Your task to perform on an android device: Open maps Image 0: 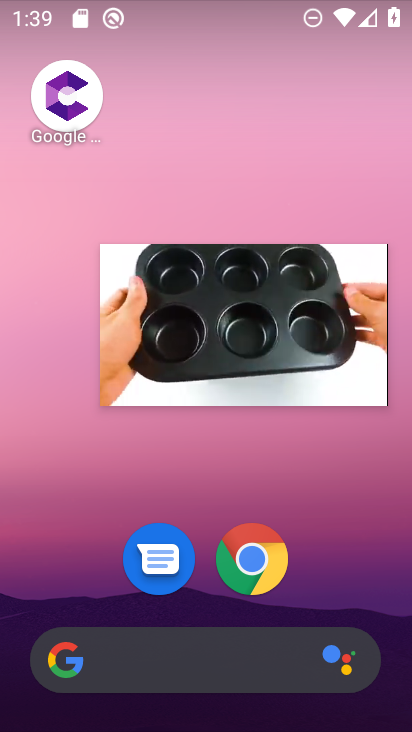
Step 0: drag from (260, 497) to (207, 58)
Your task to perform on an android device: Open maps Image 1: 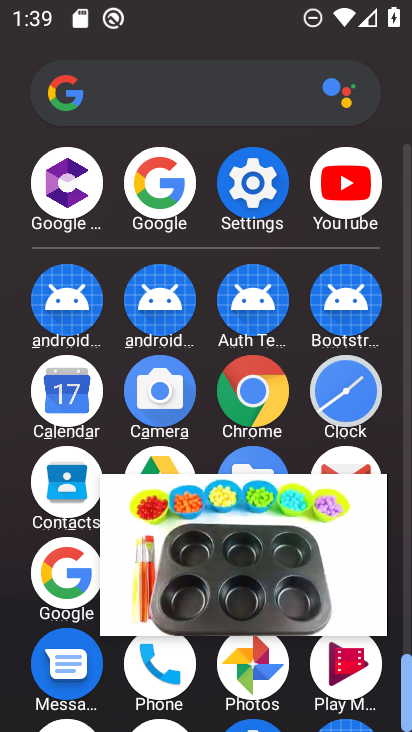
Step 1: click (279, 496)
Your task to perform on an android device: Open maps Image 2: 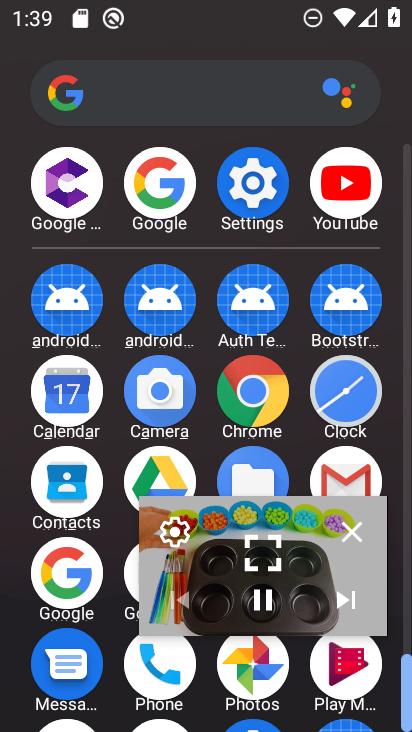
Step 2: click (355, 533)
Your task to perform on an android device: Open maps Image 3: 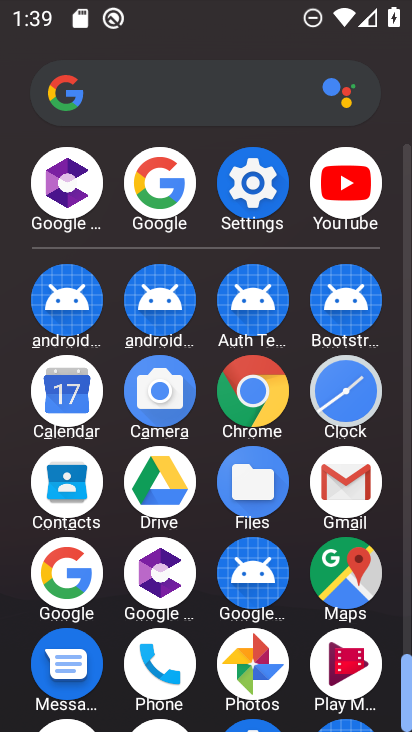
Step 3: click (344, 576)
Your task to perform on an android device: Open maps Image 4: 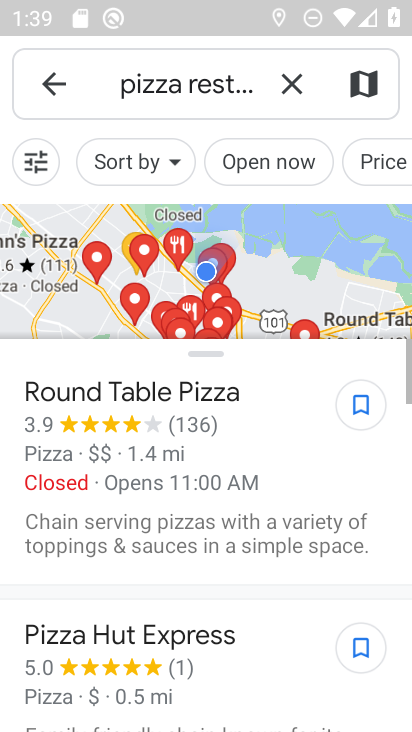
Step 4: click (289, 85)
Your task to perform on an android device: Open maps Image 5: 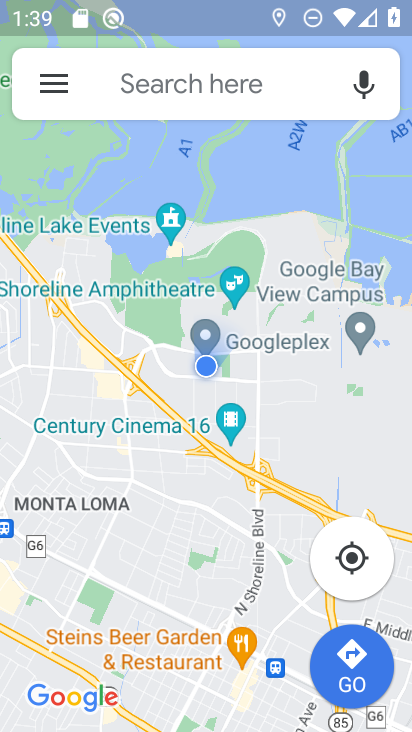
Step 5: task complete